Your task to perform on an android device: remove spam from my inbox in the gmail app Image 0: 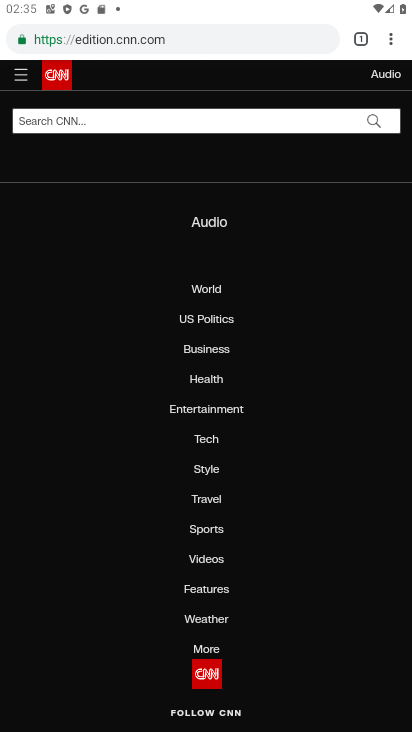
Step 0: press home button
Your task to perform on an android device: remove spam from my inbox in the gmail app Image 1: 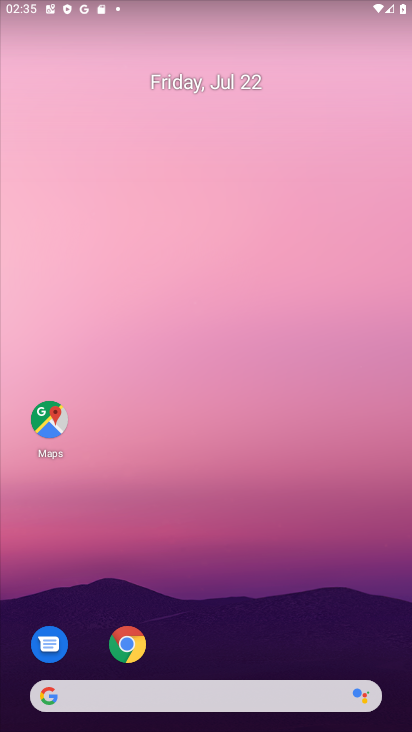
Step 1: drag from (175, 711) to (175, 252)
Your task to perform on an android device: remove spam from my inbox in the gmail app Image 2: 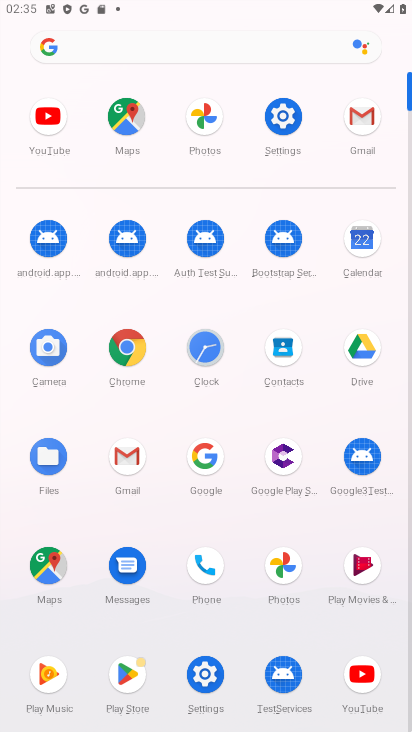
Step 2: click (373, 120)
Your task to perform on an android device: remove spam from my inbox in the gmail app Image 3: 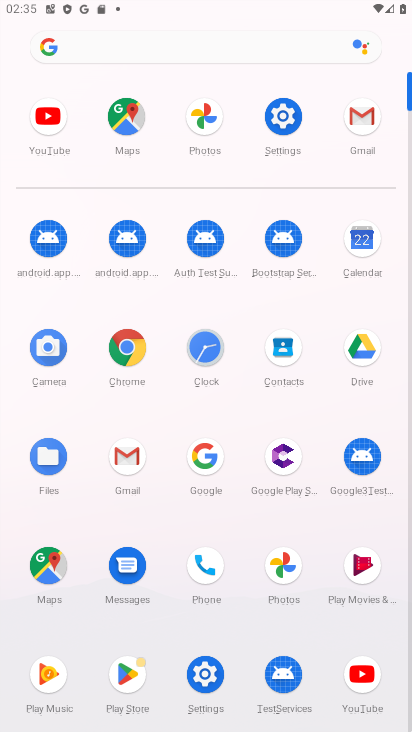
Step 3: click (373, 120)
Your task to perform on an android device: remove spam from my inbox in the gmail app Image 4: 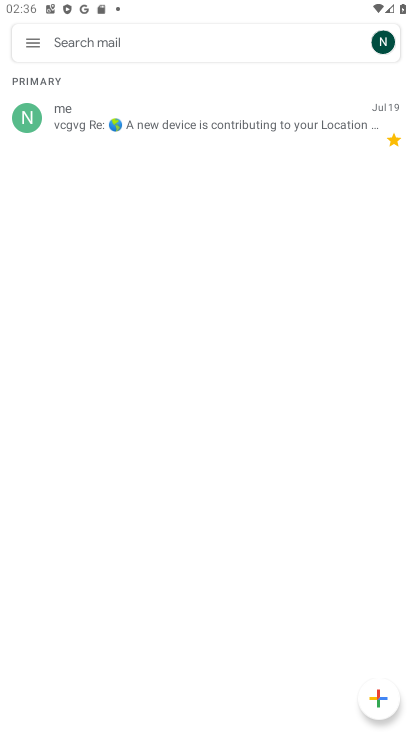
Step 4: click (34, 39)
Your task to perform on an android device: remove spam from my inbox in the gmail app Image 5: 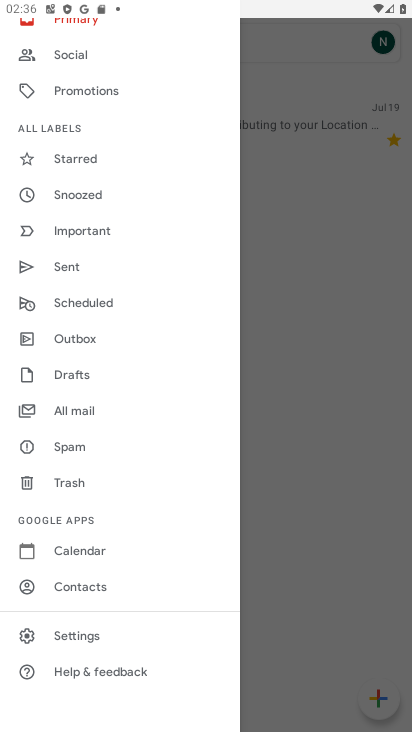
Step 5: click (101, 442)
Your task to perform on an android device: remove spam from my inbox in the gmail app Image 6: 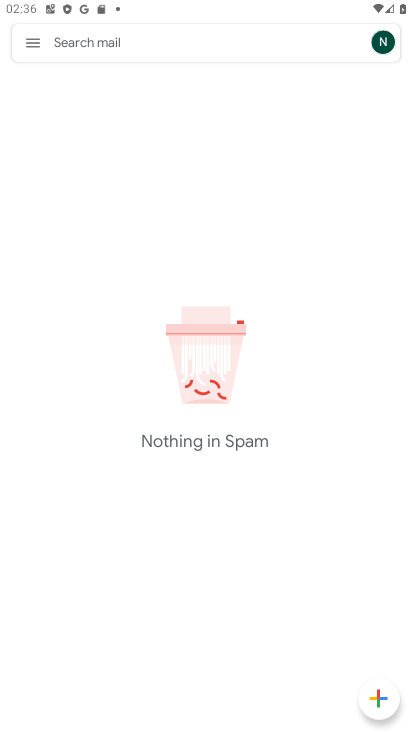
Step 6: click (30, 42)
Your task to perform on an android device: remove spam from my inbox in the gmail app Image 7: 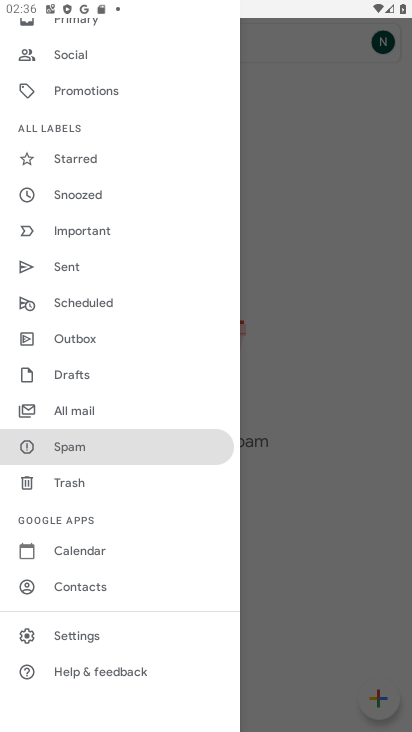
Step 7: click (328, 259)
Your task to perform on an android device: remove spam from my inbox in the gmail app Image 8: 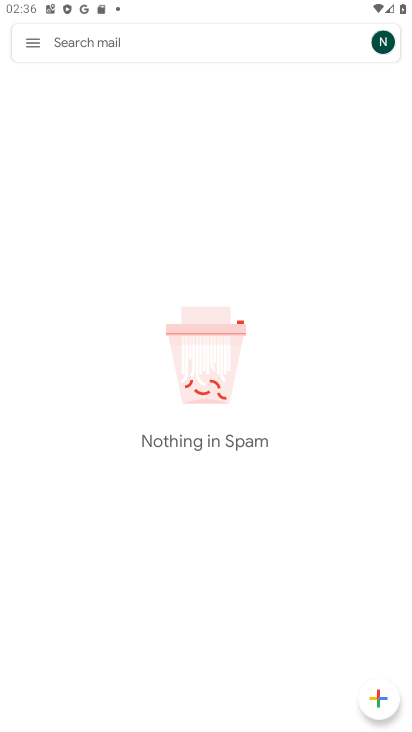
Step 8: task complete